Your task to perform on an android device: Open Google Chrome and click the shortcut for Amazon.com Image 0: 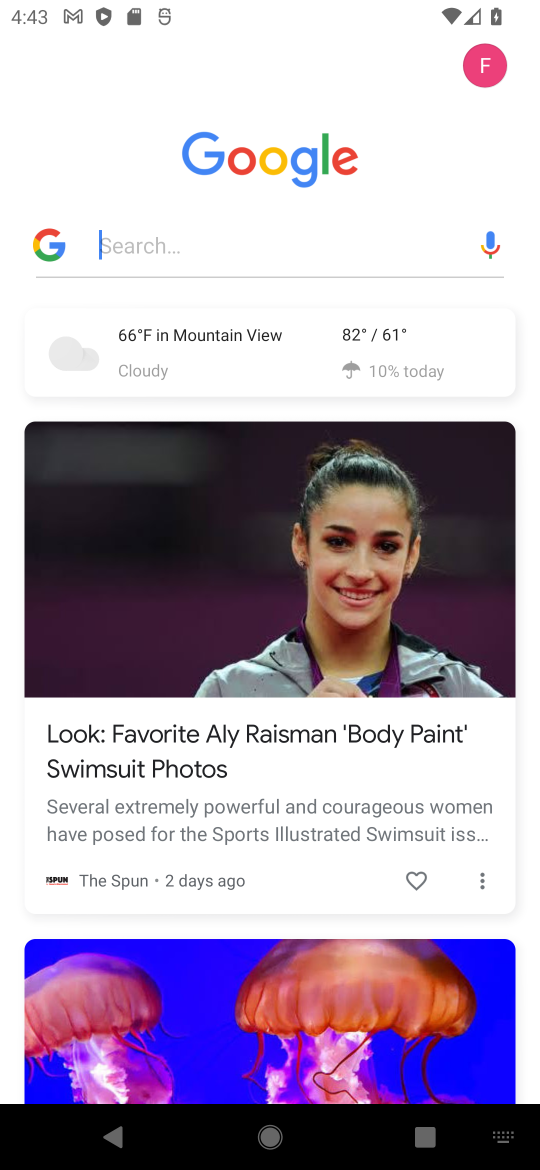
Step 0: press home button
Your task to perform on an android device: Open Google Chrome and click the shortcut for Amazon.com Image 1: 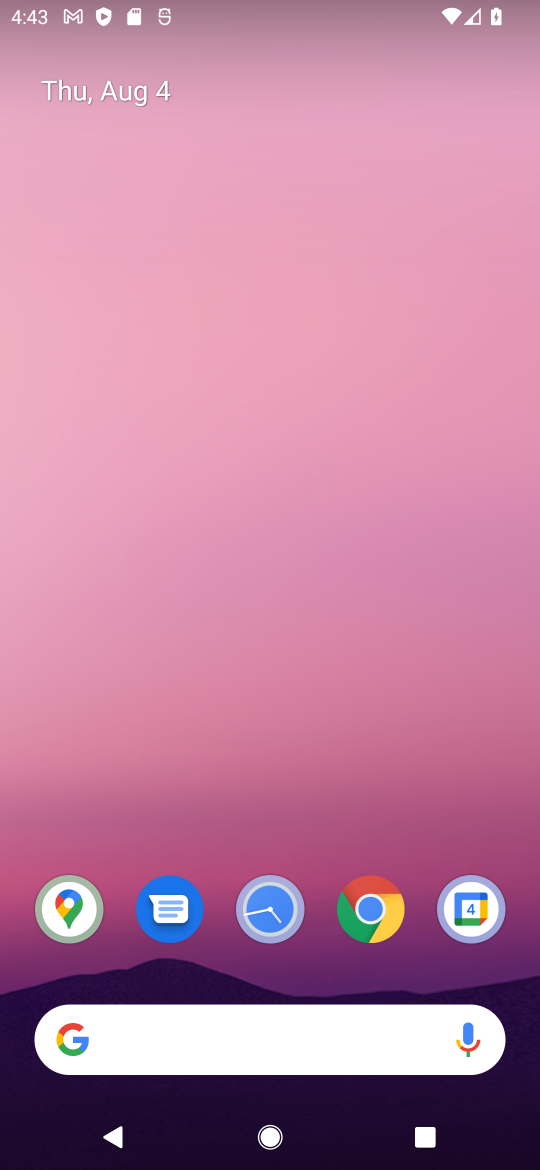
Step 1: click (360, 912)
Your task to perform on an android device: Open Google Chrome and click the shortcut for Amazon.com Image 2: 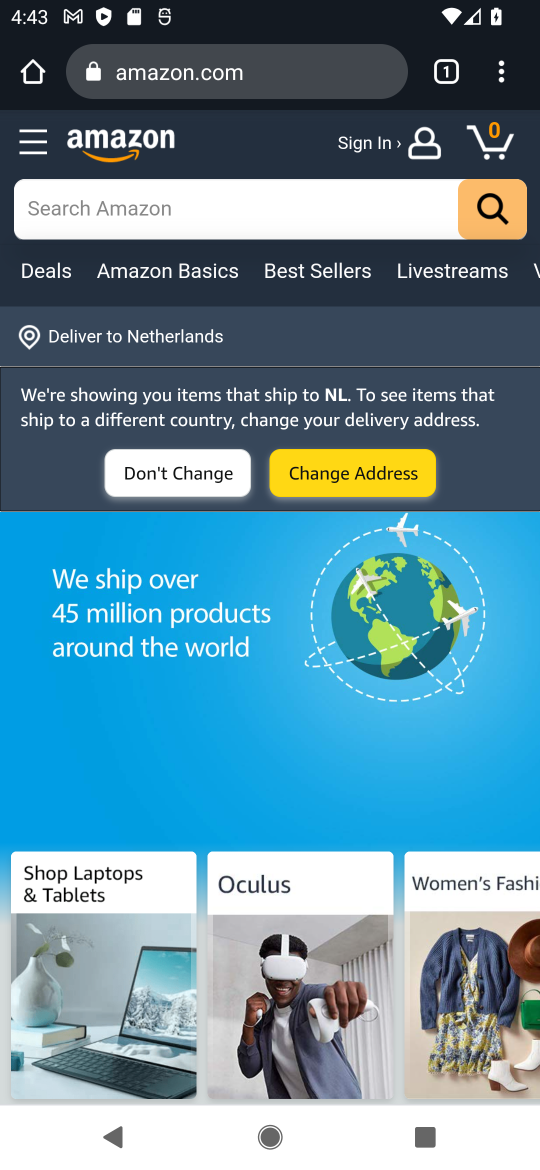
Step 2: click (498, 66)
Your task to perform on an android device: Open Google Chrome and click the shortcut for Amazon.com Image 3: 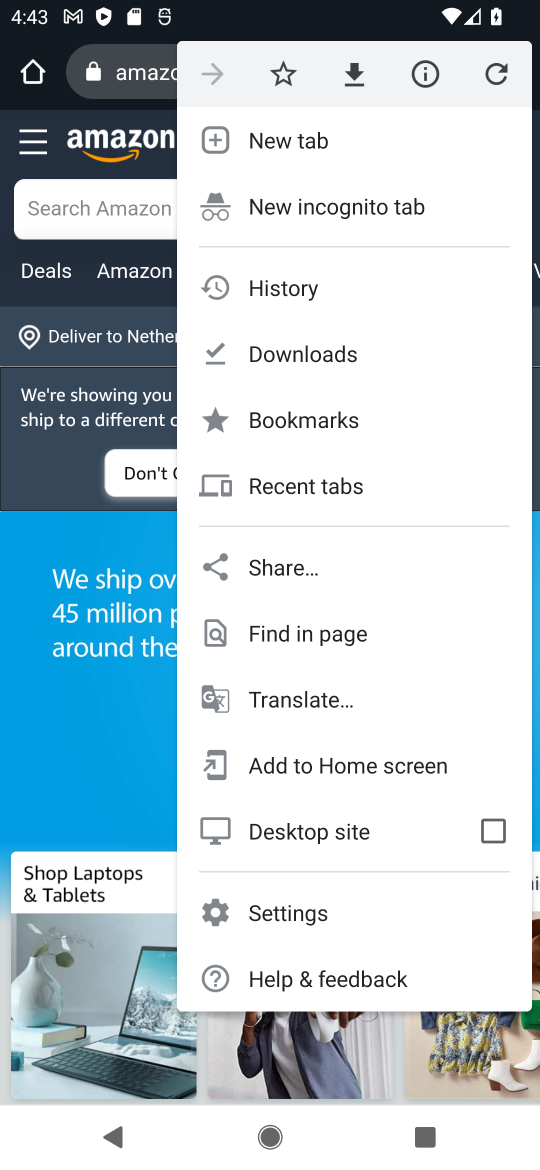
Step 3: click (109, 154)
Your task to perform on an android device: Open Google Chrome and click the shortcut for Amazon.com Image 4: 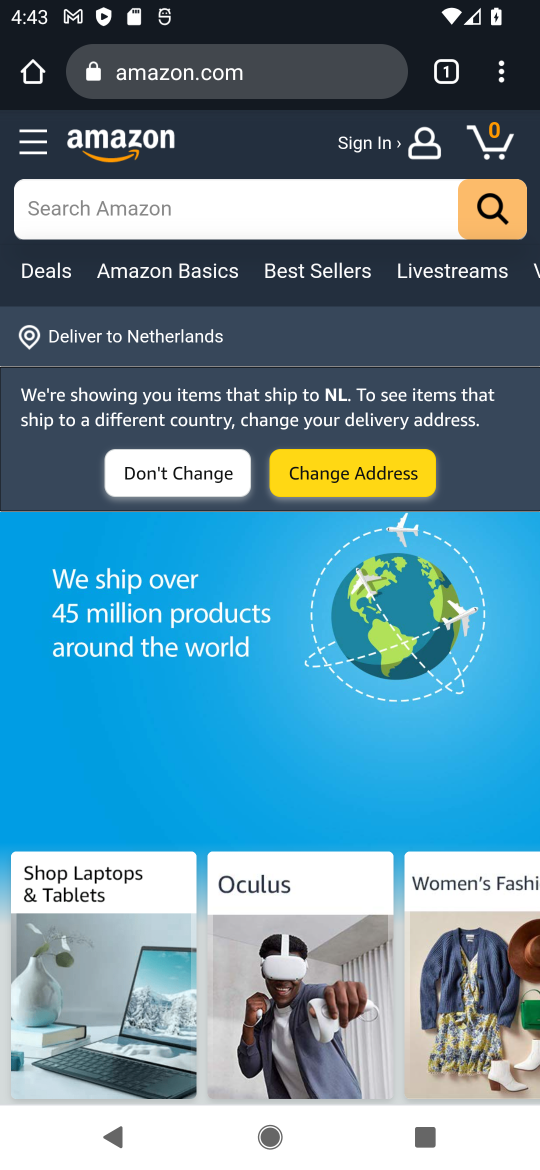
Step 4: click (119, 146)
Your task to perform on an android device: Open Google Chrome and click the shortcut for Amazon.com Image 5: 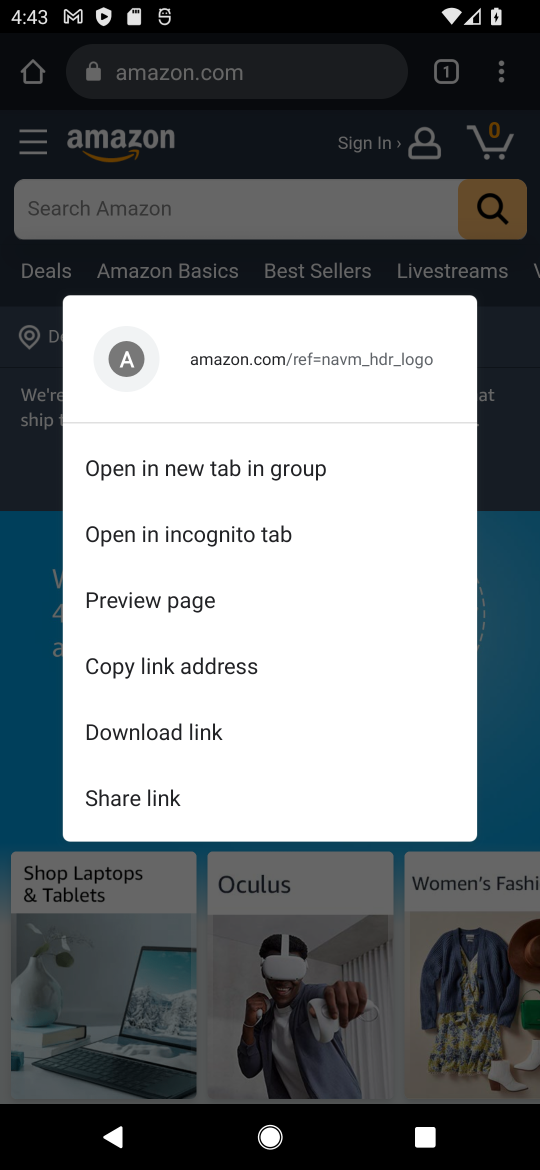
Step 5: click (182, 473)
Your task to perform on an android device: Open Google Chrome and click the shortcut for Amazon.com Image 6: 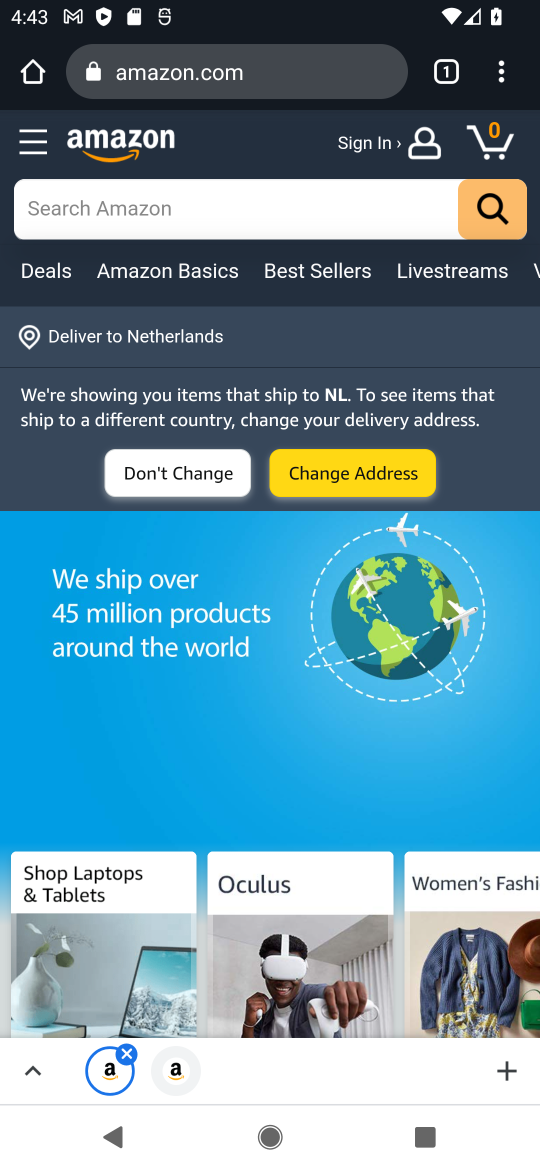
Step 6: task complete